Your task to perform on an android device: set default search engine in the chrome app Image 0: 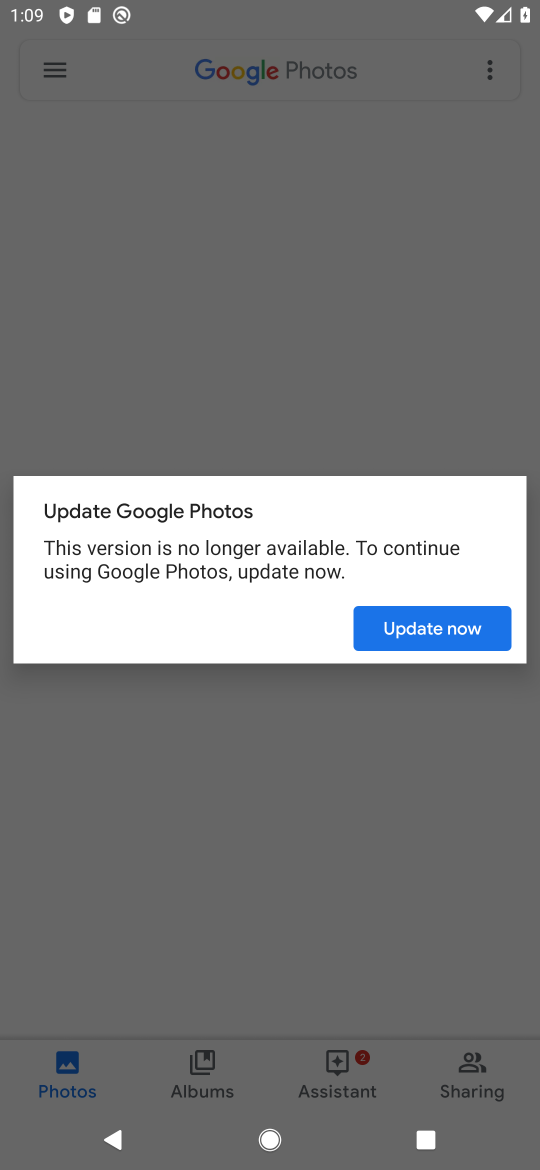
Step 0: press home button
Your task to perform on an android device: set default search engine in the chrome app Image 1: 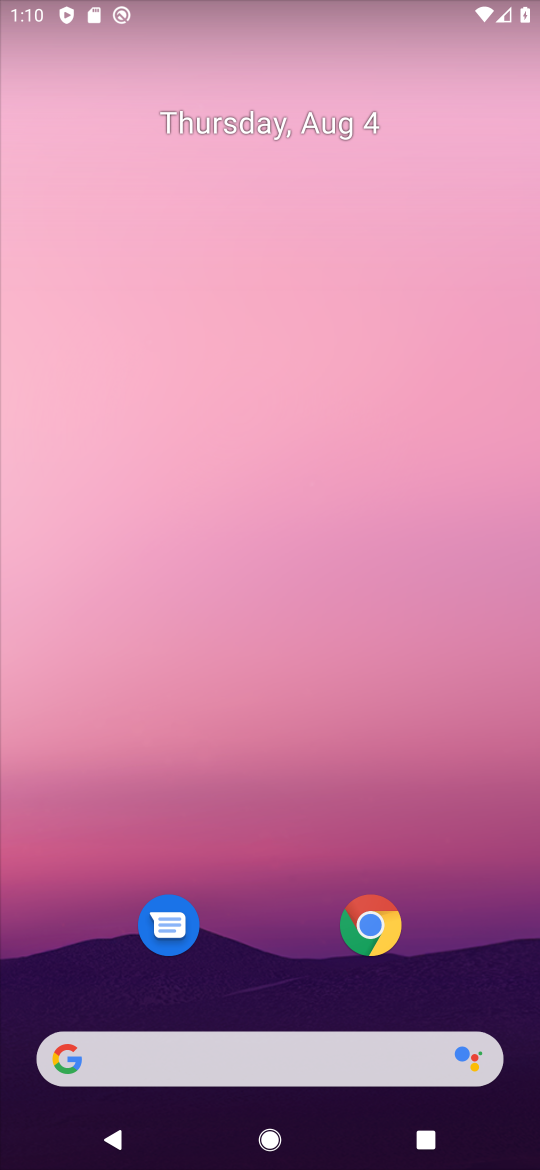
Step 1: click (380, 926)
Your task to perform on an android device: set default search engine in the chrome app Image 2: 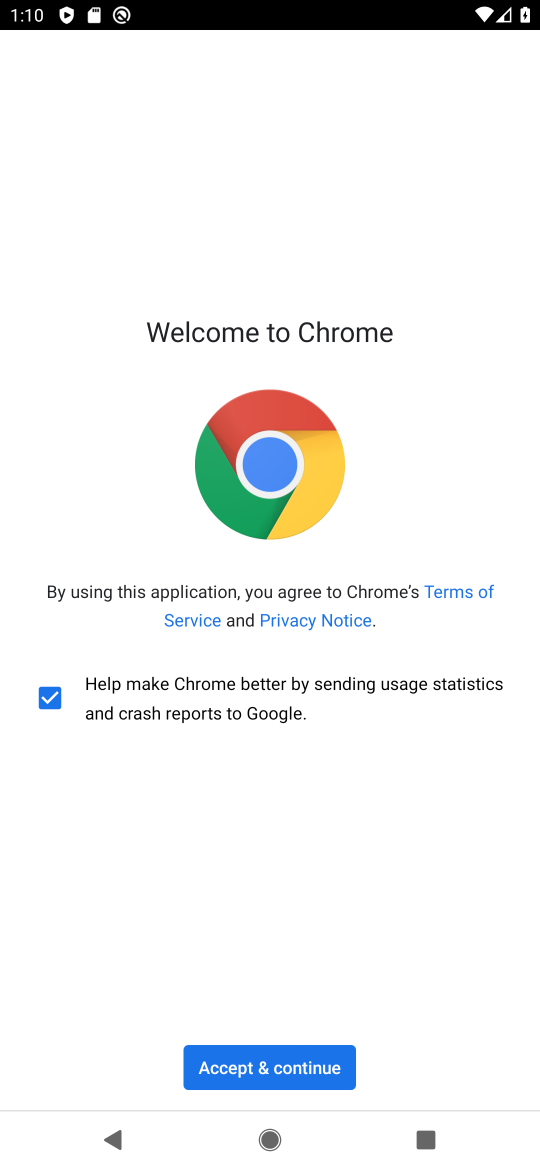
Step 2: click (284, 1082)
Your task to perform on an android device: set default search engine in the chrome app Image 3: 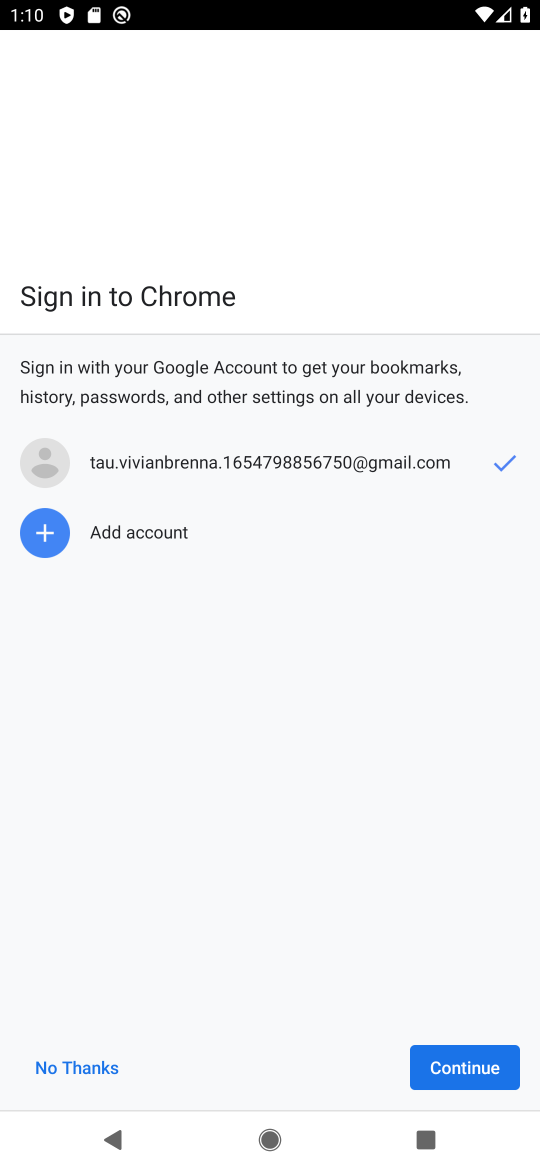
Step 3: click (458, 1064)
Your task to perform on an android device: set default search engine in the chrome app Image 4: 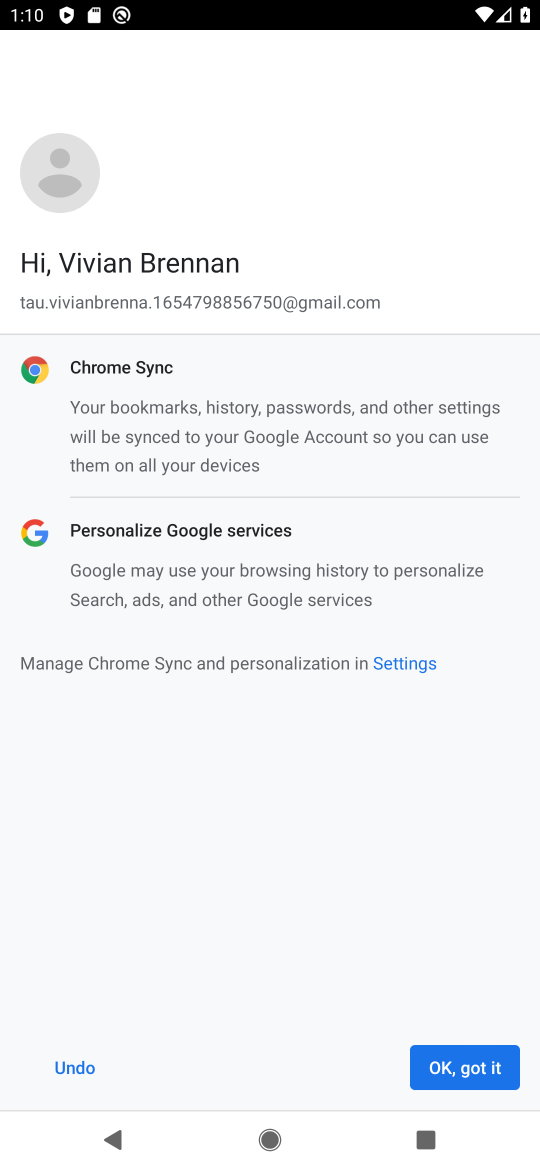
Step 4: click (458, 1064)
Your task to perform on an android device: set default search engine in the chrome app Image 5: 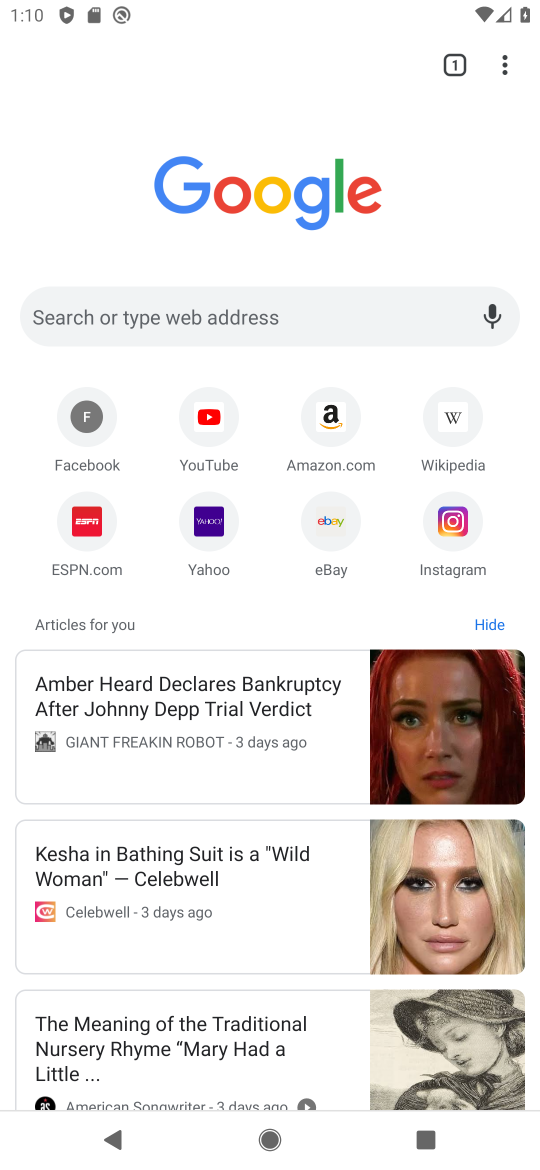
Step 5: click (504, 64)
Your task to perform on an android device: set default search engine in the chrome app Image 6: 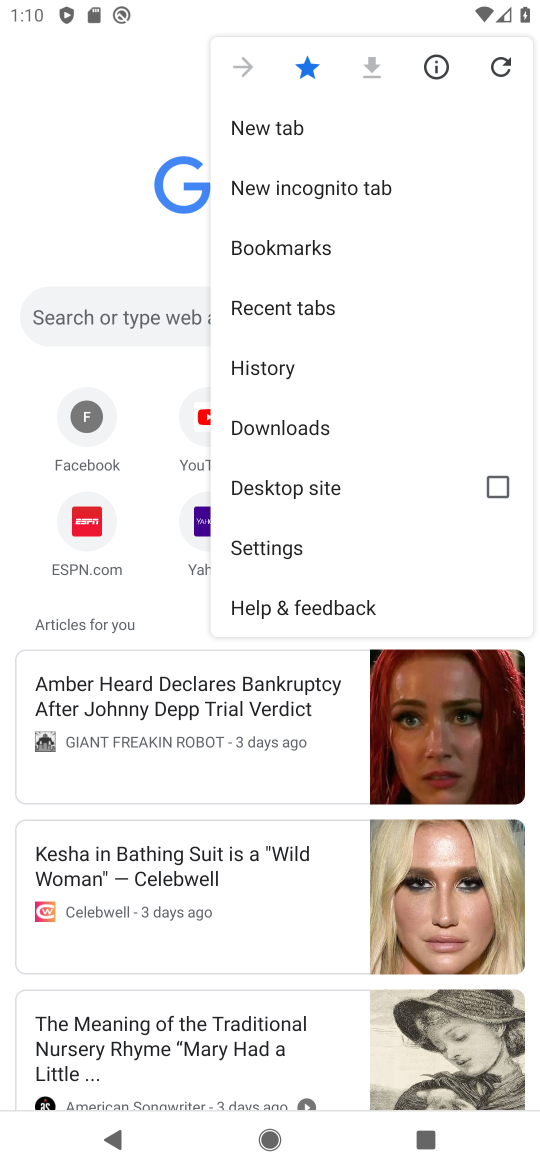
Step 6: click (326, 547)
Your task to perform on an android device: set default search engine in the chrome app Image 7: 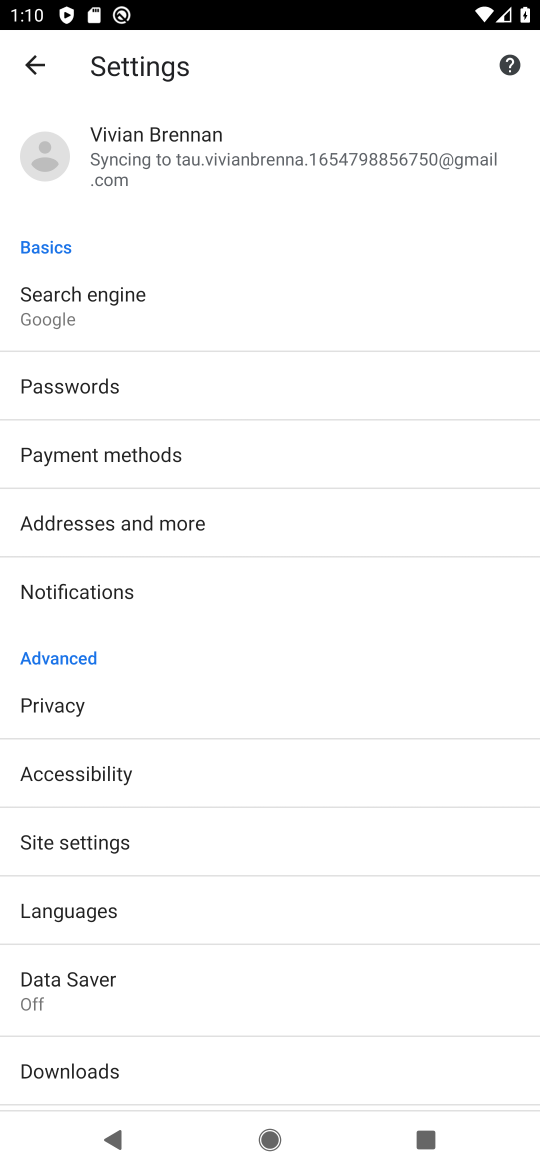
Step 7: click (157, 301)
Your task to perform on an android device: set default search engine in the chrome app Image 8: 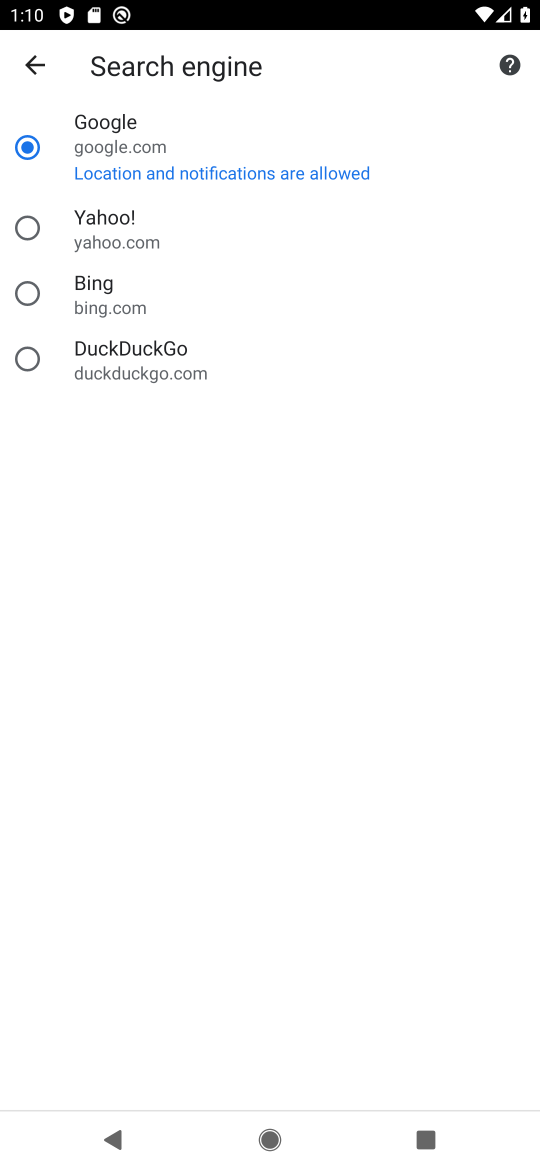
Step 8: click (148, 140)
Your task to perform on an android device: set default search engine in the chrome app Image 9: 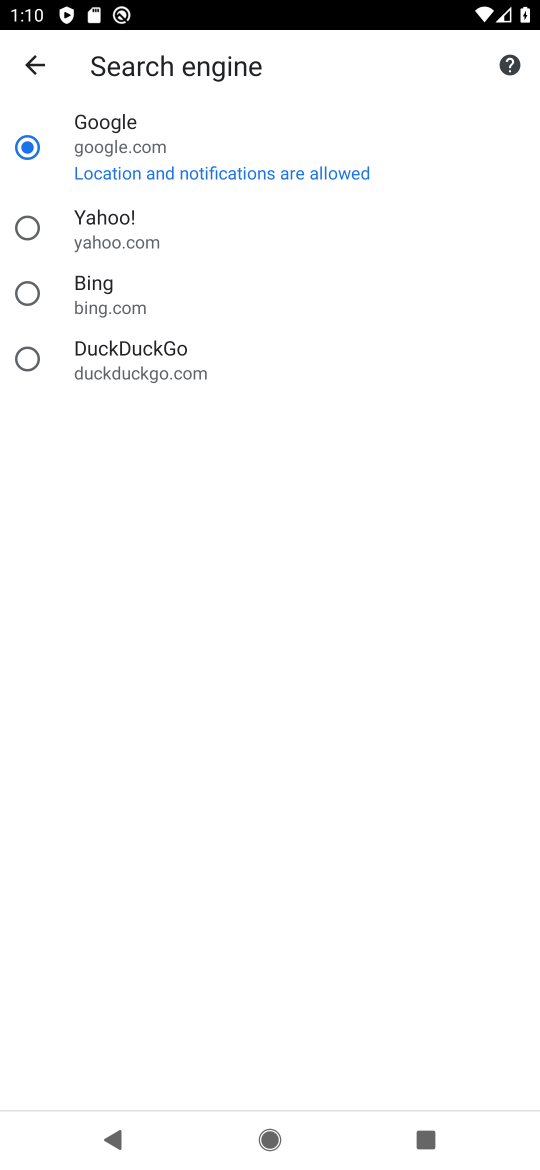
Step 9: click (148, 140)
Your task to perform on an android device: set default search engine in the chrome app Image 10: 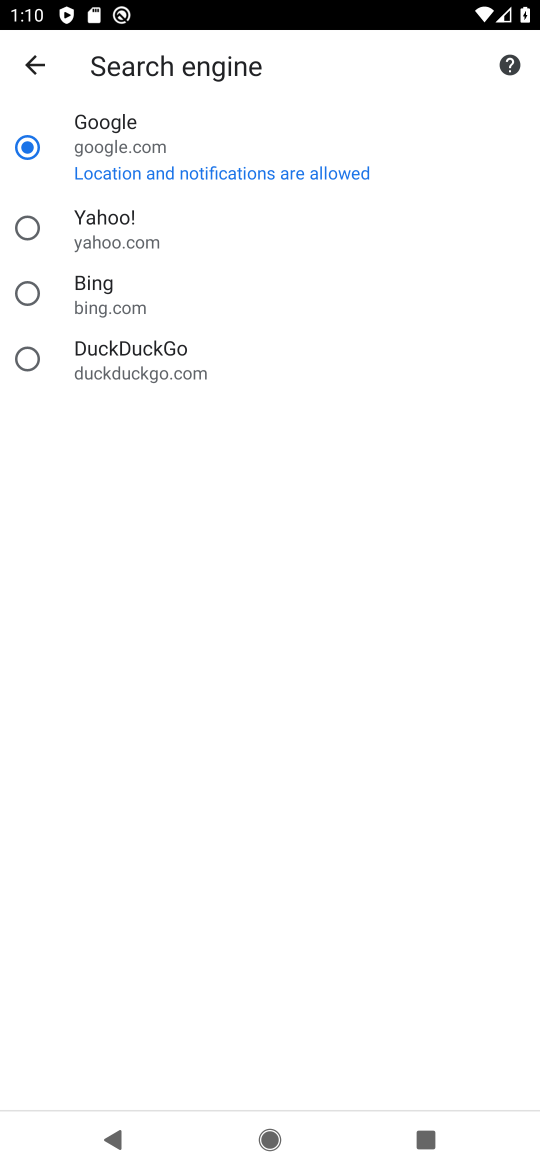
Step 10: click (35, 66)
Your task to perform on an android device: set default search engine in the chrome app Image 11: 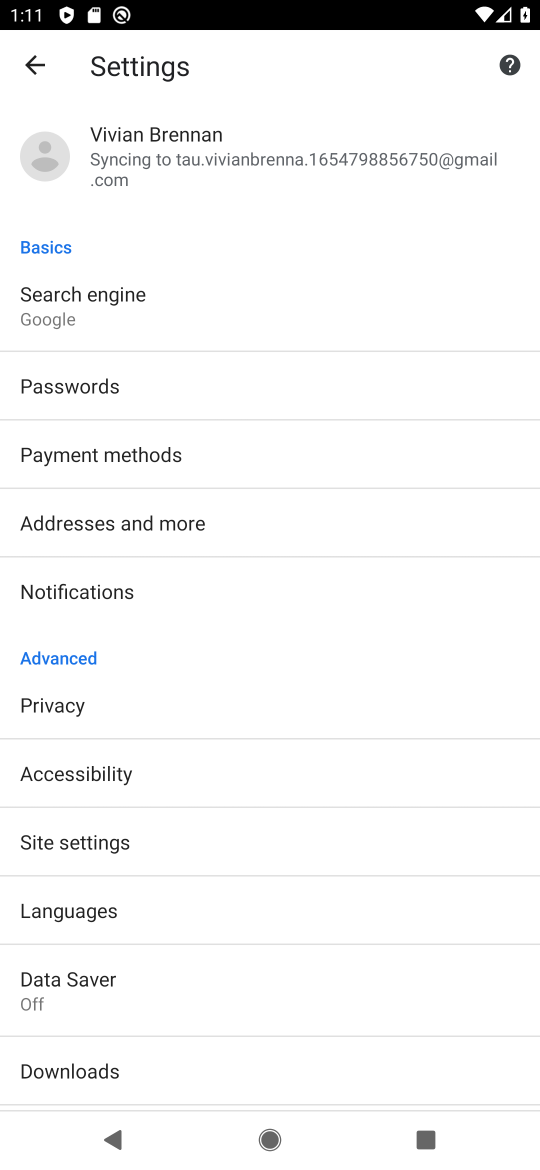
Step 11: task complete